Your task to perform on an android device: Open Maps and search for coffee Image 0: 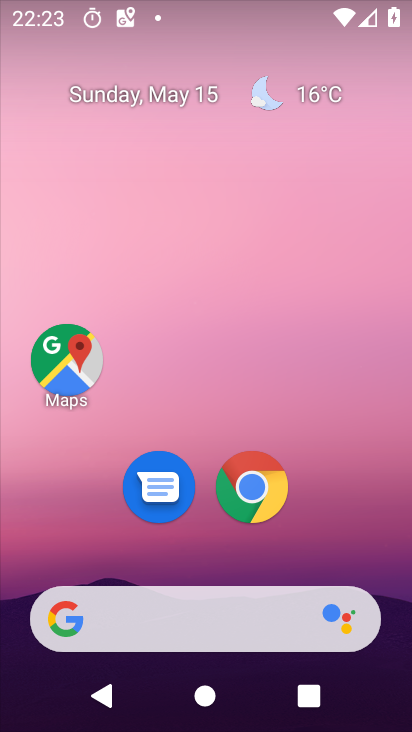
Step 0: click (63, 352)
Your task to perform on an android device: Open Maps and search for coffee Image 1: 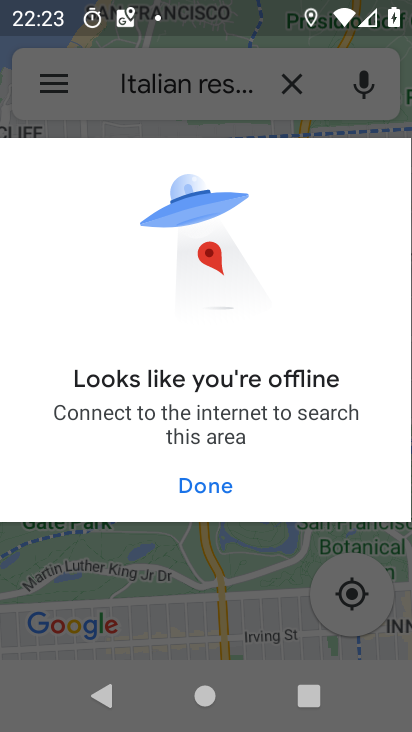
Step 1: click (200, 492)
Your task to perform on an android device: Open Maps and search for coffee Image 2: 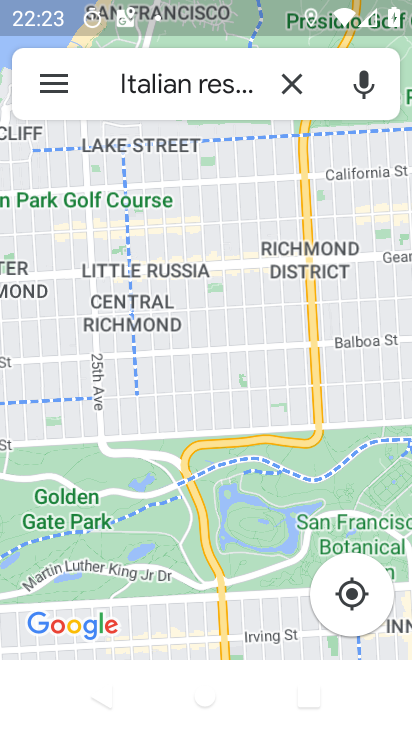
Step 2: click (291, 88)
Your task to perform on an android device: Open Maps and search for coffee Image 3: 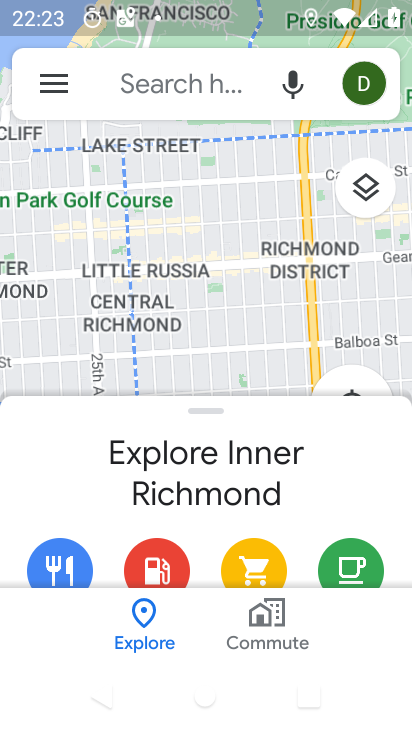
Step 3: click (156, 86)
Your task to perform on an android device: Open Maps and search for coffee Image 4: 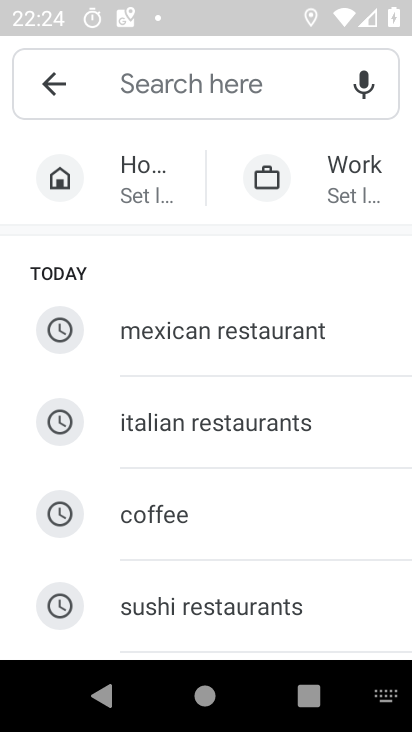
Step 4: click (144, 84)
Your task to perform on an android device: Open Maps and search for coffee Image 5: 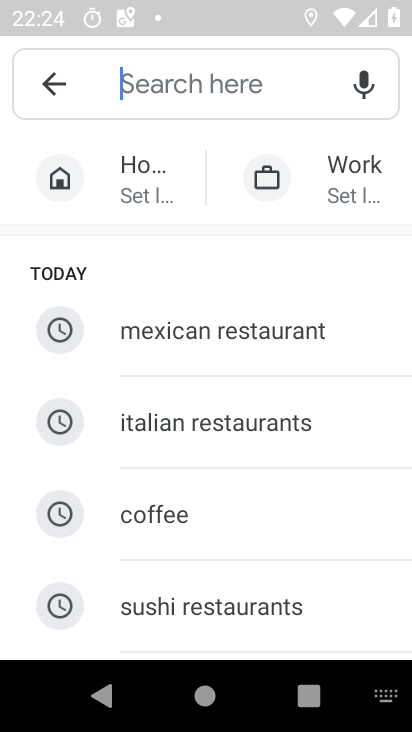
Step 5: click (144, 84)
Your task to perform on an android device: Open Maps and search for coffee Image 6: 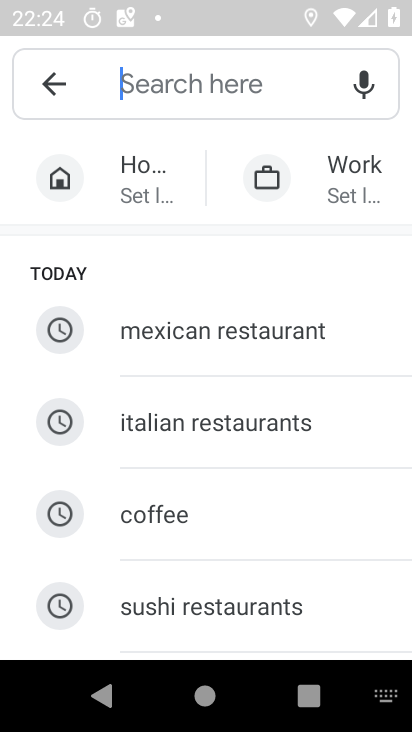
Step 6: click (190, 81)
Your task to perform on an android device: Open Maps and search for coffee Image 7: 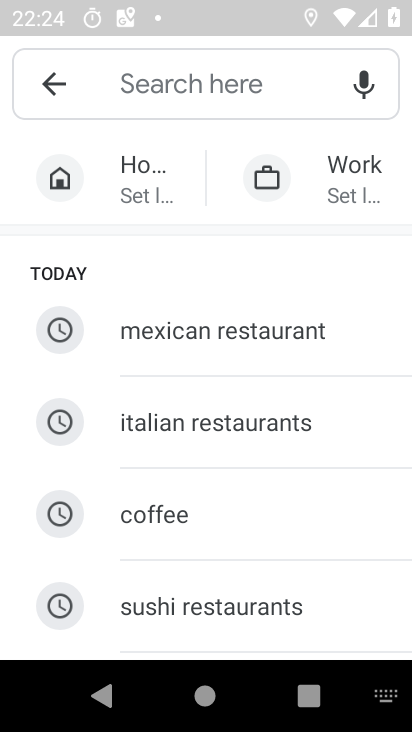
Step 7: type "coffee"
Your task to perform on an android device: Open Maps and search for coffee Image 8: 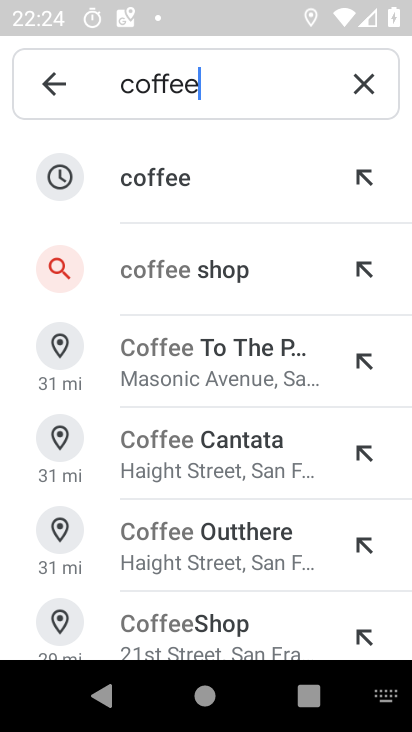
Step 8: click (162, 171)
Your task to perform on an android device: Open Maps and search for coffee Image 9: 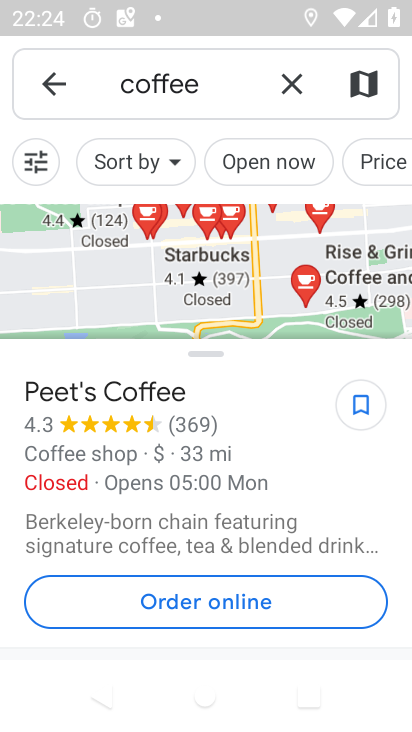
Step 9: task complete